Your task to perform on an android device: Go to location settings Image 0: 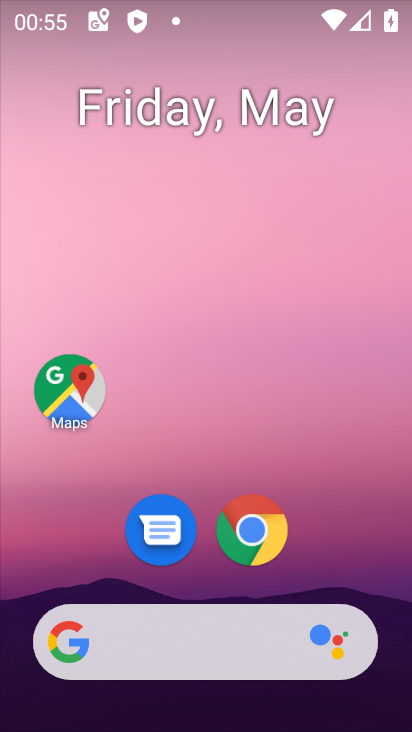
Step 0: drag from (313, 544) to (231, 108)
Your task to perform on an android device: Go to location settings Image 1: 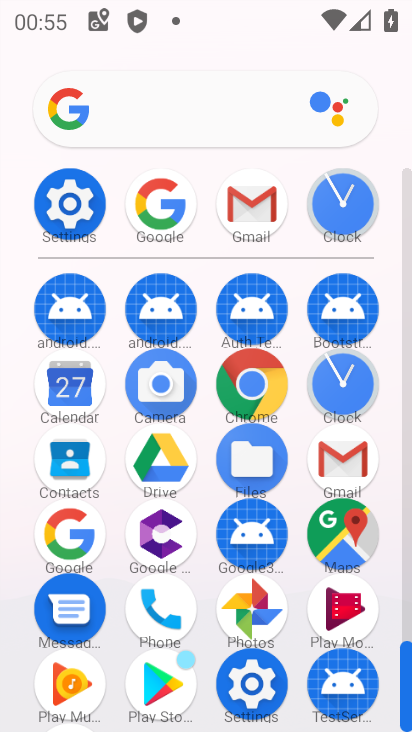
Step 1: click (69, 204)
Your task to perform on an android device: Go to location settings Image 2: 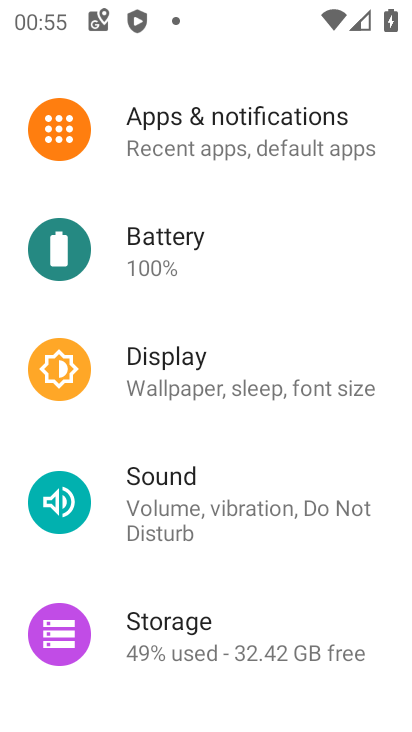
Step 2: drag from (239, 455) to (282, 360)
Your task to perform on an android device: Go to location settings Image 3: 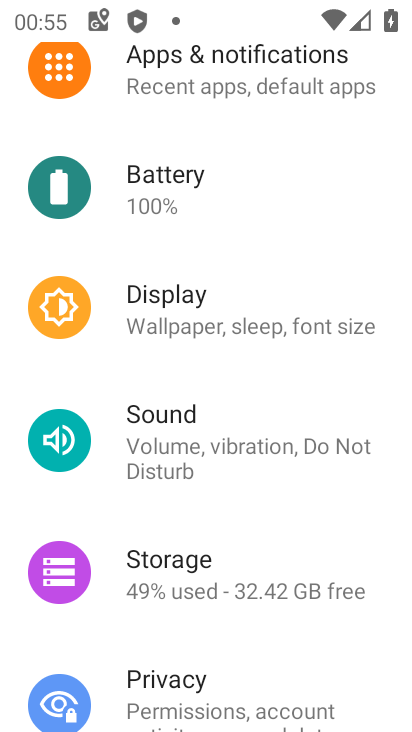
Step 3: drag from (234, 521) to (275, 425)
Your task to perform on an android device: Go to location settings Image 4: 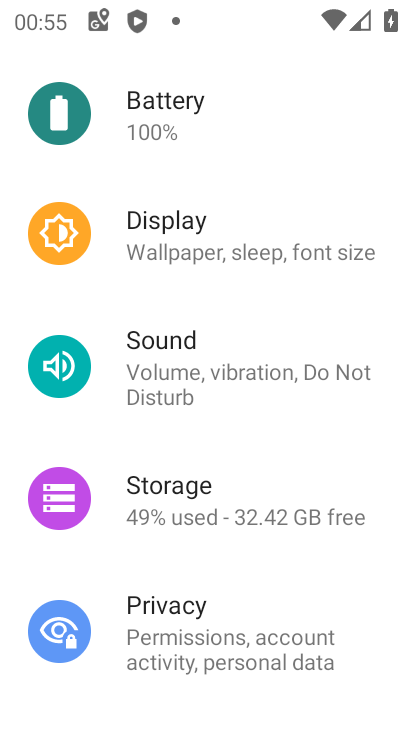
Step 4: drag from (222, 582) to (270, 480)
Your task to perform on an android device: Go to location settings Image 5: 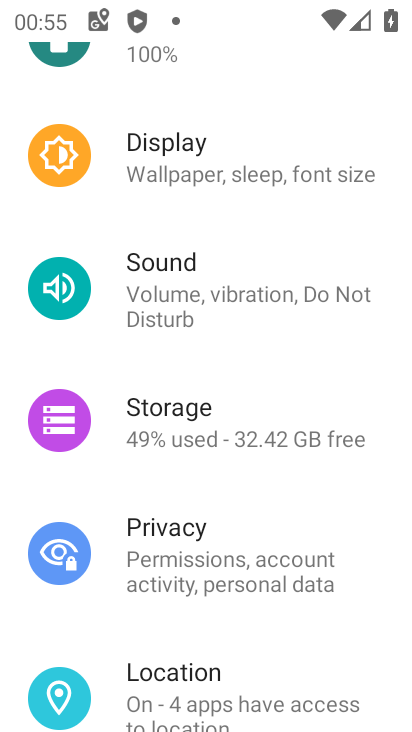
Step 5: drag from (182, 638) to (294, 473)
Your task to perform on an android device: Go to location settings Image 6: 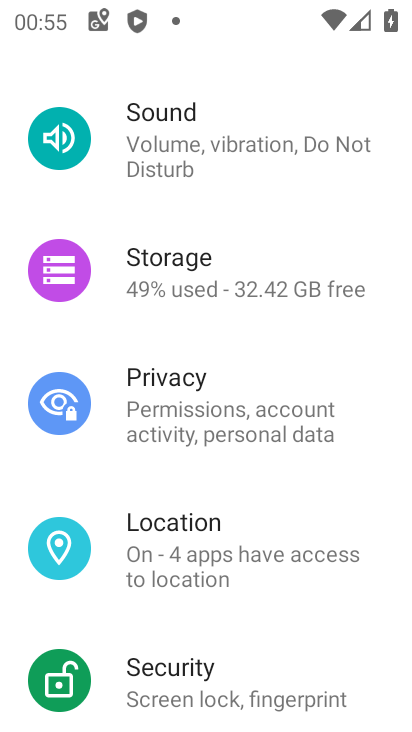
Step 6: click (205, 556)
Your task to perform on an android device: Go to location settings Image 7: 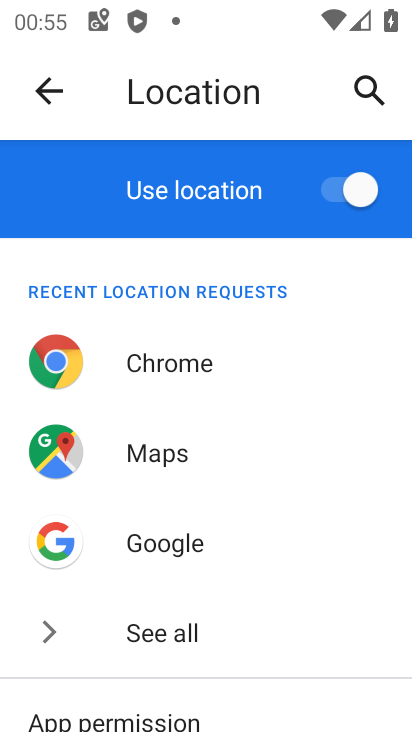
Step 7: task complete